Your task to perform on an android device: change alarm snooze length Image 0: 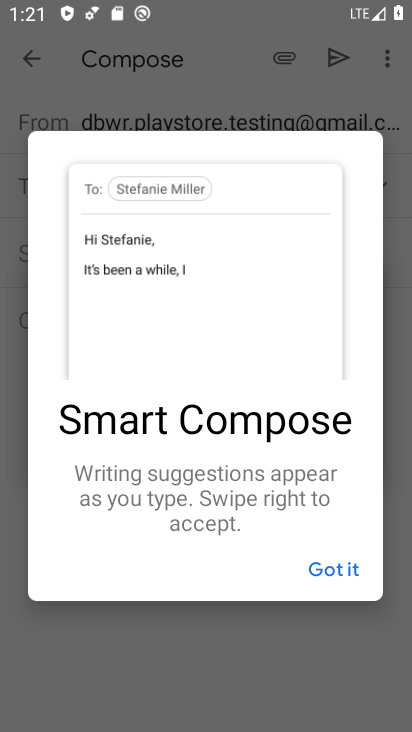
Step 0: press home button
Your task to perform on an android device: change alarm snooze length Image 1: 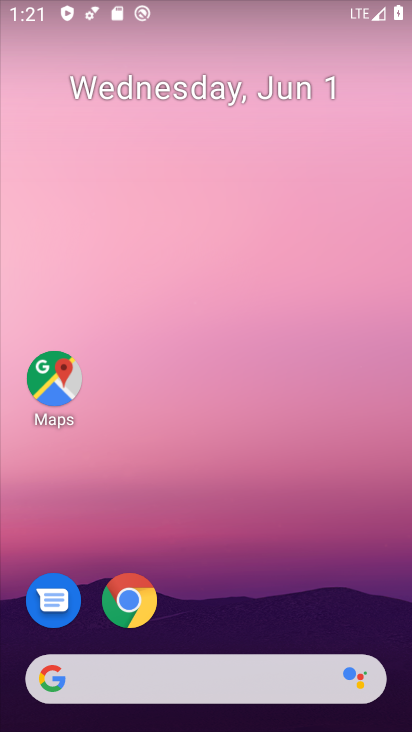
Step 1: drag from (262, 684) to (333, 315)
Your task to perform on an android device: change alarm snooze length Image 2: 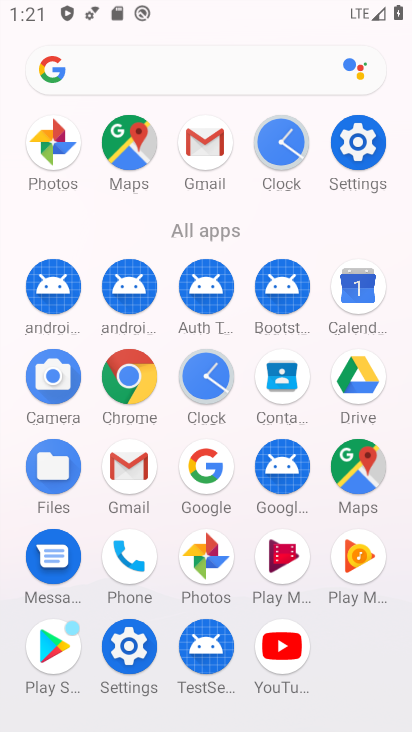
Step 2: click (213, 386)
Your task to perform on an android device: change alarm snooze length Image 3: 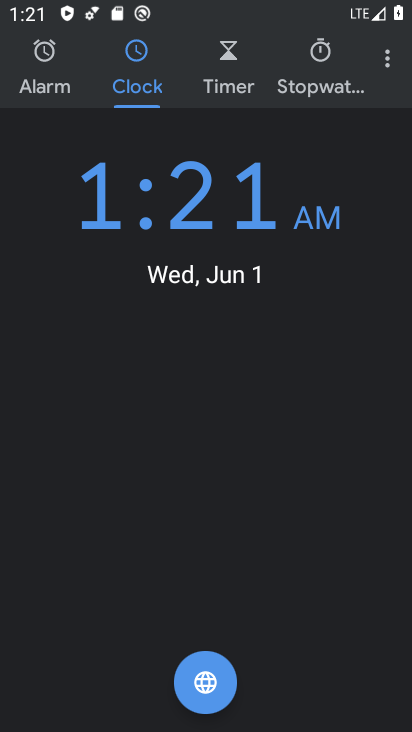
Step 3: click (397, 62)
Your task to perform on an android device: change alarm snooze length Image 4: 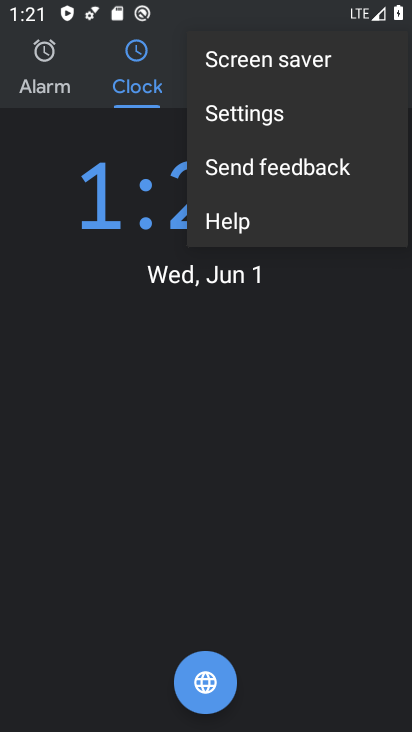
Step 4: click (341, 120)
Your task to perform on an android device: change alarm snooze length Image 5: 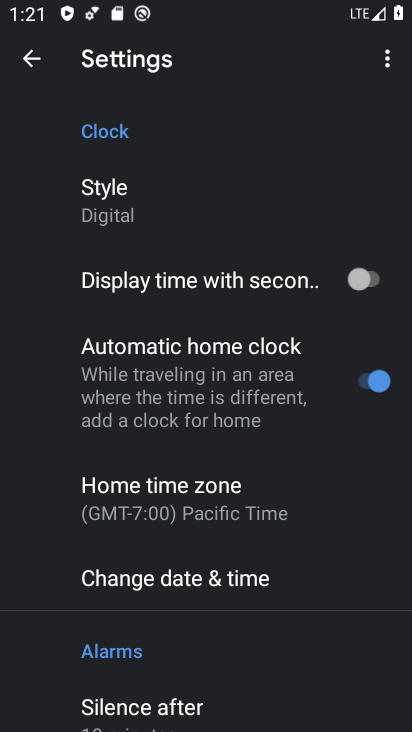
Step 5: drag from (230, 641) to (306, 250)
Your task to perform on an android device: change alarm snooze length Image 6: 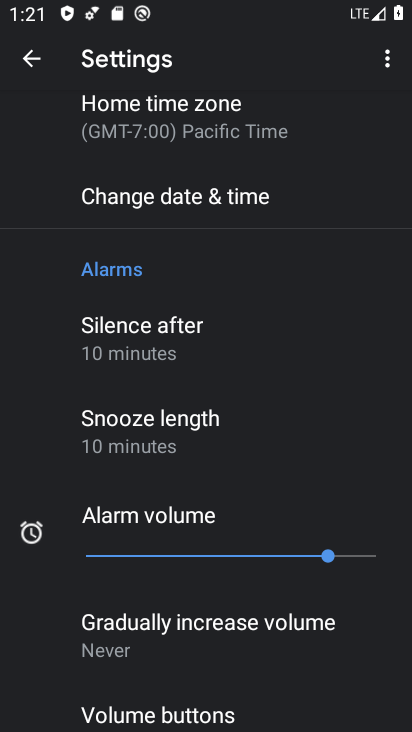
Step 6: click (238, 412)
Your task to perform on an android device: change alarm snooze length Image 7: 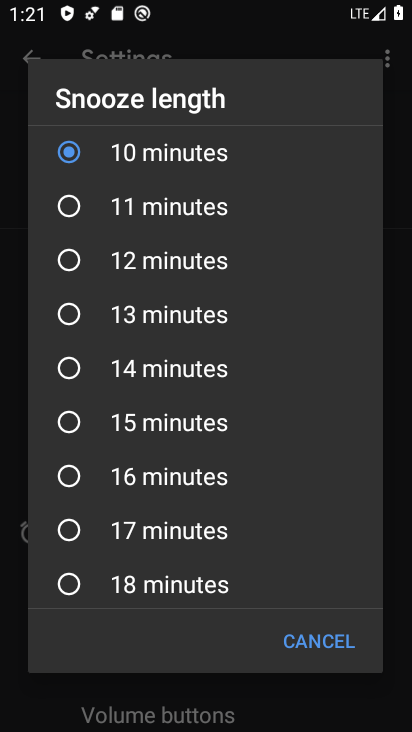
Step 7: click (205, 417)
Your task to perform on an android device: change alarm snooze length Image 8: 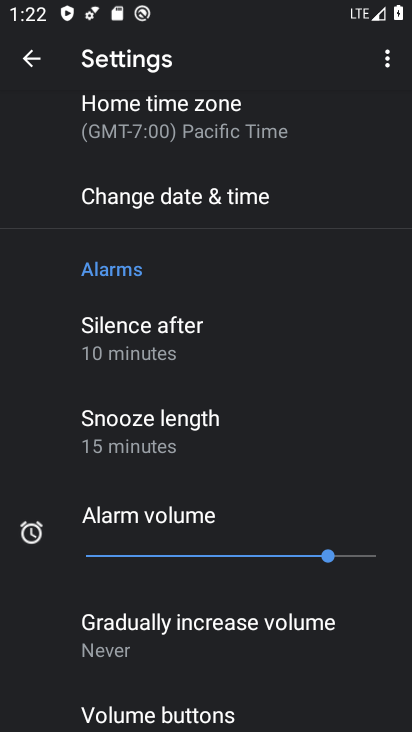
Step 8: task complete